Your task to perform on an android device: turn on notifications settings in the gmail app Image 0: 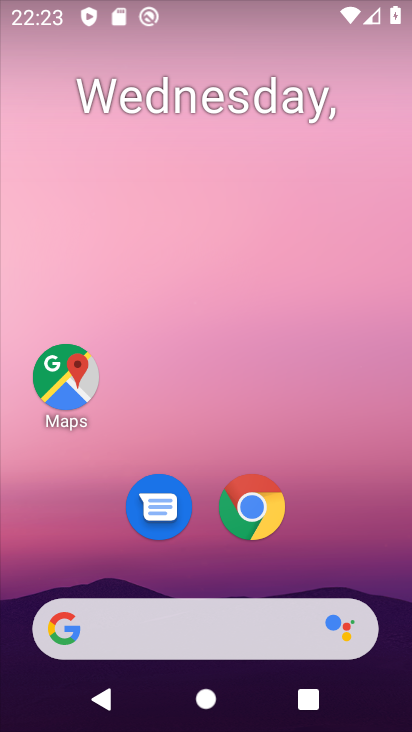
Step 0: drag from (348, 564) to (330, 240)
Your task to perform on an android device: turn on notifications settings in the gmail app Image 1: 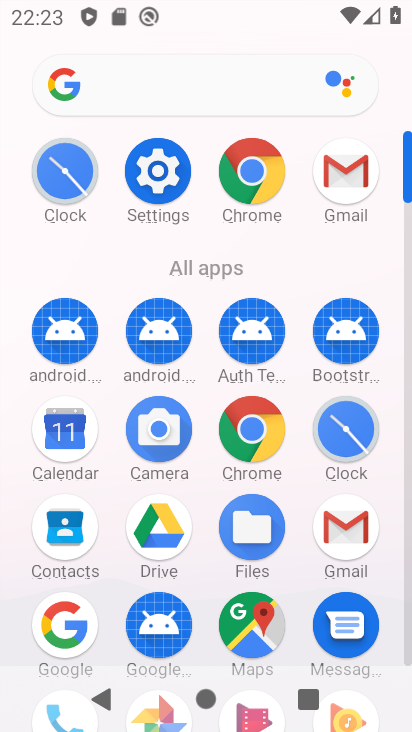
Step 1: click (333, 170)
Your task to perform on an android device: turn on notifications settings in the gmail app Image 2: 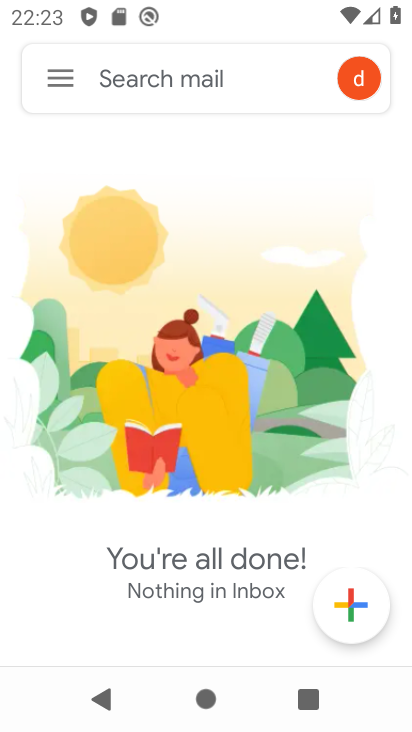
Step 2: click (58, 64)
Your task to perform on an android device: turn on notifications settings in the gmail app Image 3: 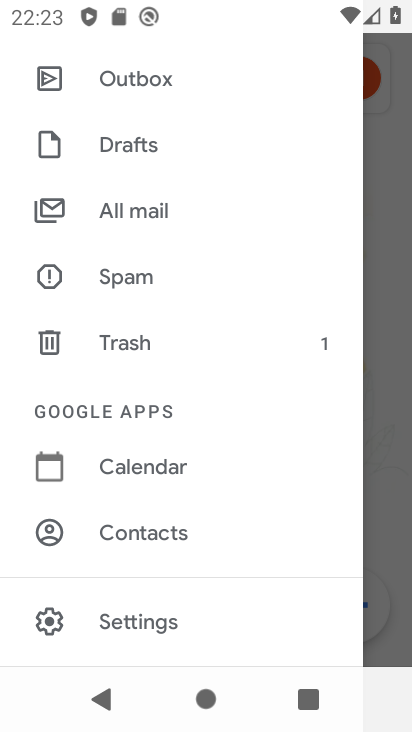
Step 3: click (169, 629)
Your task to perform on an android device: turn on notifications settings in the gmail app Image 4: 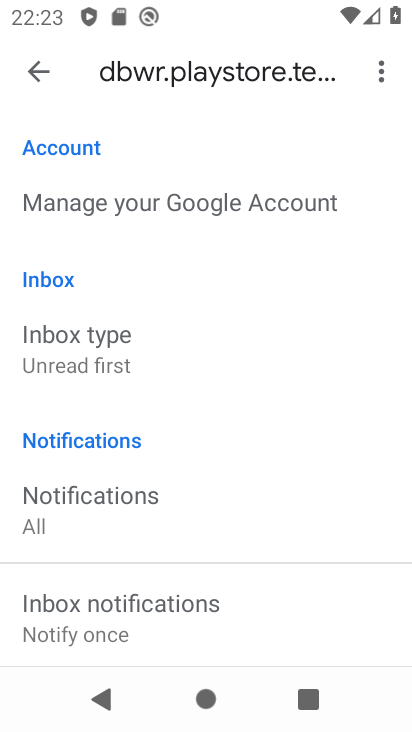
Step 4: click (116, 503)
Your task to perform on an android device: turn on notifications settings in the gmail app Image 5: 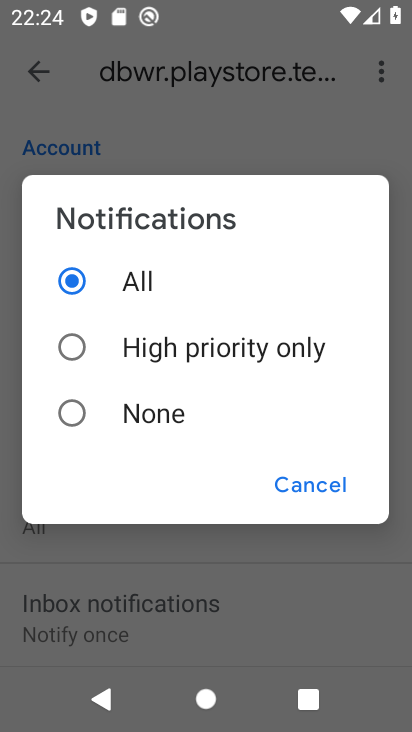
Step 5: task complete